Your task to perform on an android device: Turn off the flashlight Image 0: 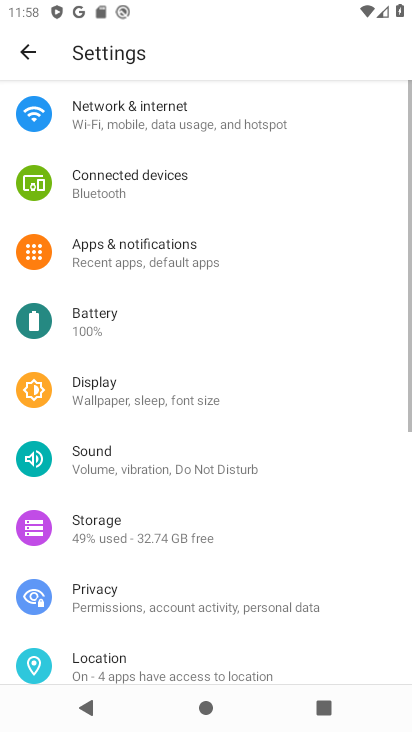
Step 0: drag from (244, 244) to (242, 501)
Your task to perform on an android device: Turn off the flashlight Image 1: 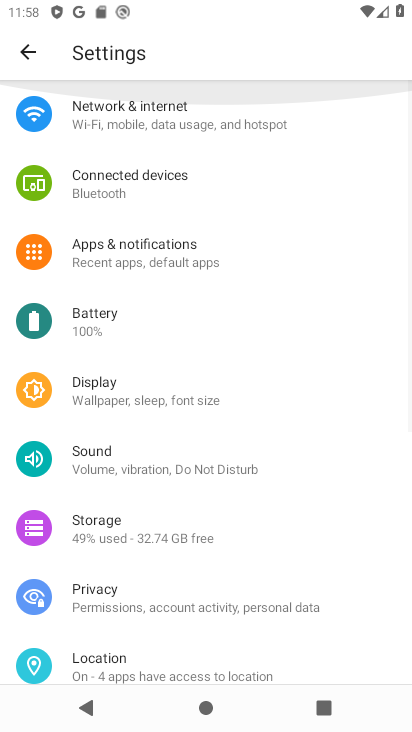
Step 1: task complete